Your task to perform on an android device: Search for beats solo 3 on newegg, select the first entry, add it to the cart, then select checkout. Image 0: 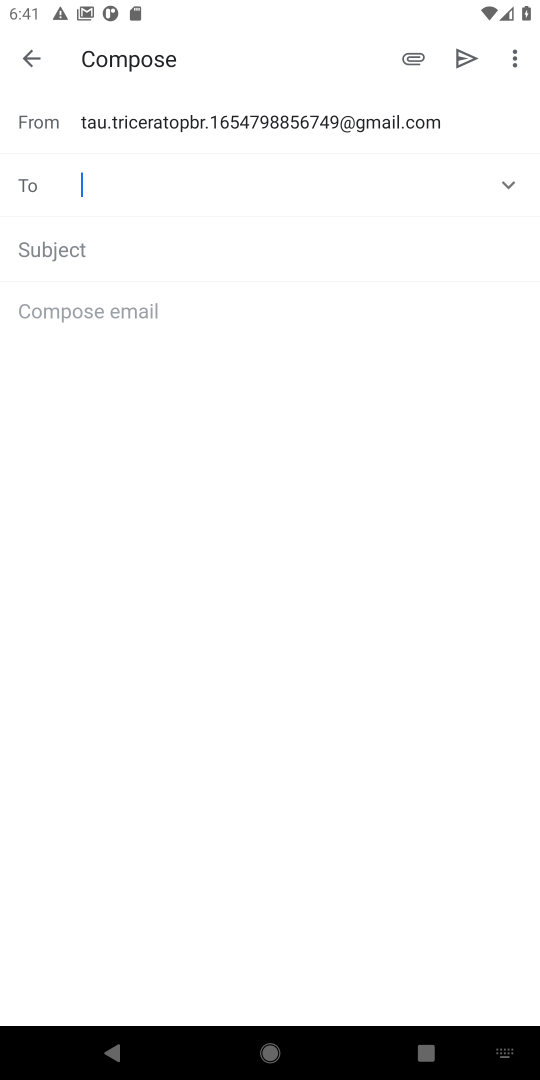
Step 0: press home button
Your task to perform on an android device: Search for beats solo 3 on newegg, select the first entry, add it to the cart, then select checkout. Image 1: 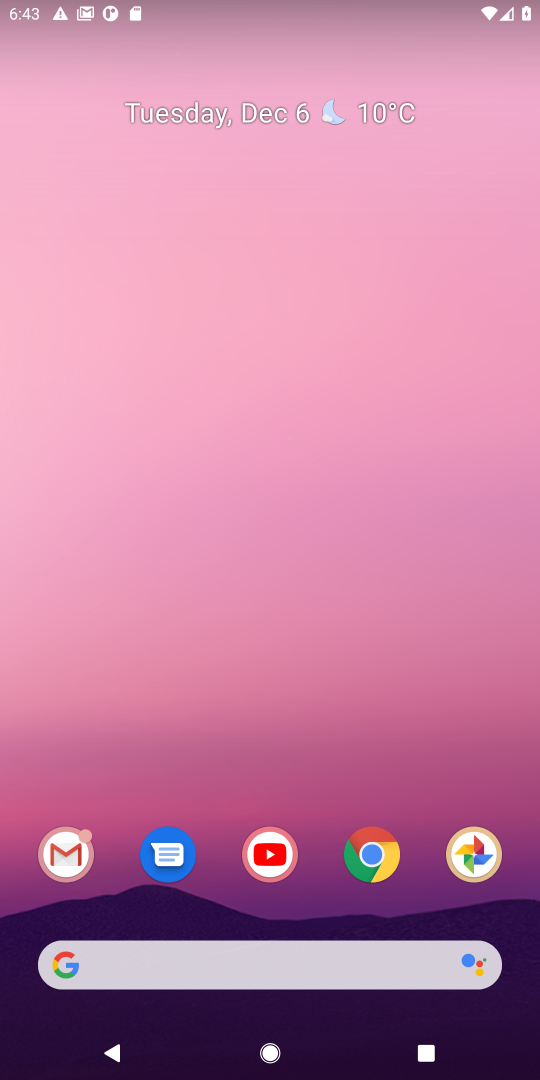
Step 1: click (375, 881)
Your task to perform on an android device: Search for beats solo 3 on newegg, select the first entry, add it to the cart, then select checkout. Image 2: 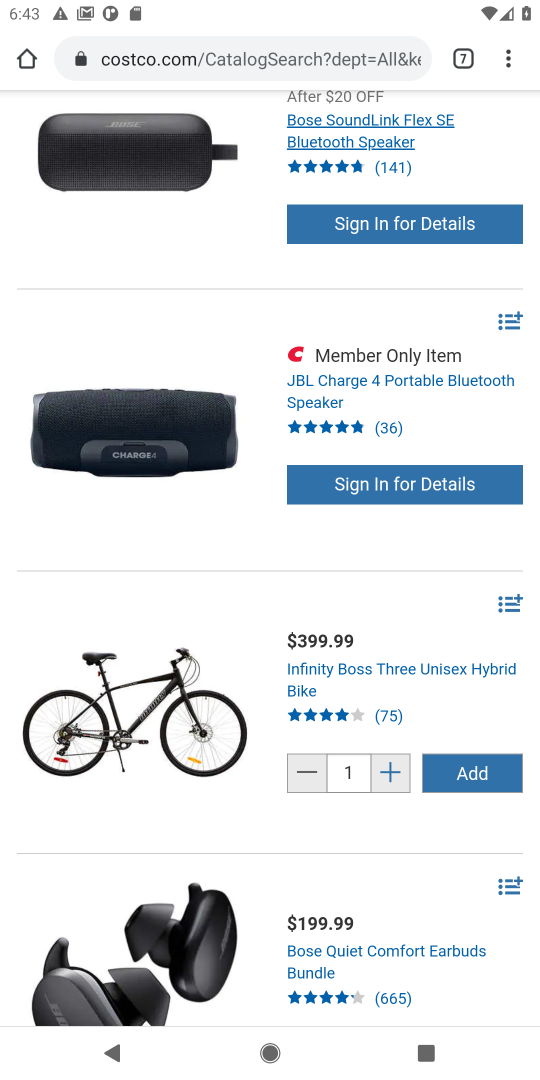
Step 2: click (463, 50)
Your task to perform on an android device: Search for beats solo 3 on newegg, select the first entry, add it to the cart, then select checkout. Image 3: 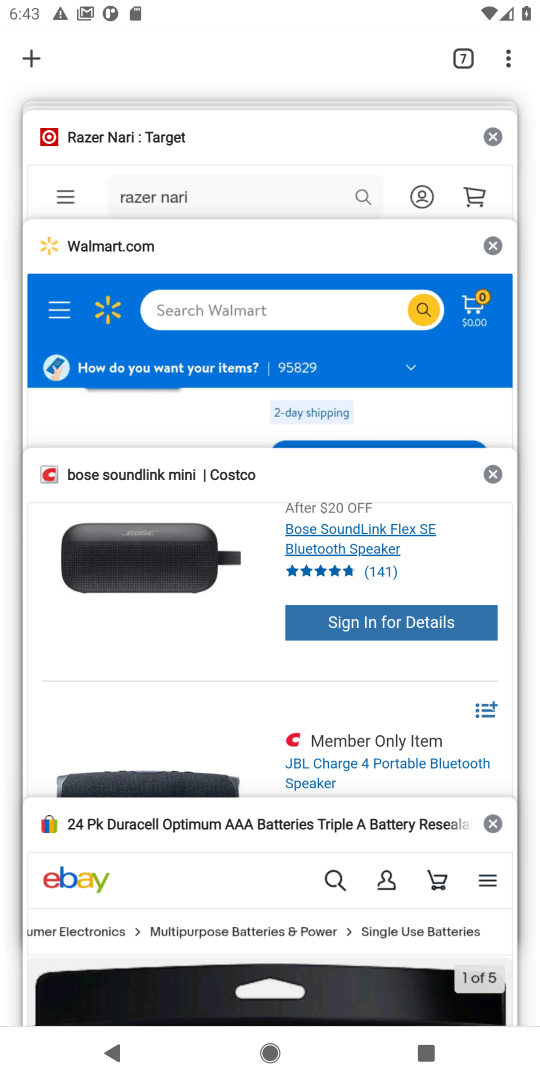
Step 3: drag from (153, 110) to (134, 442)
Your task to perform on an android device: Search for beats solo 3 on newegg, select the first entry, add it to the cart, then select checkout. Image 4: 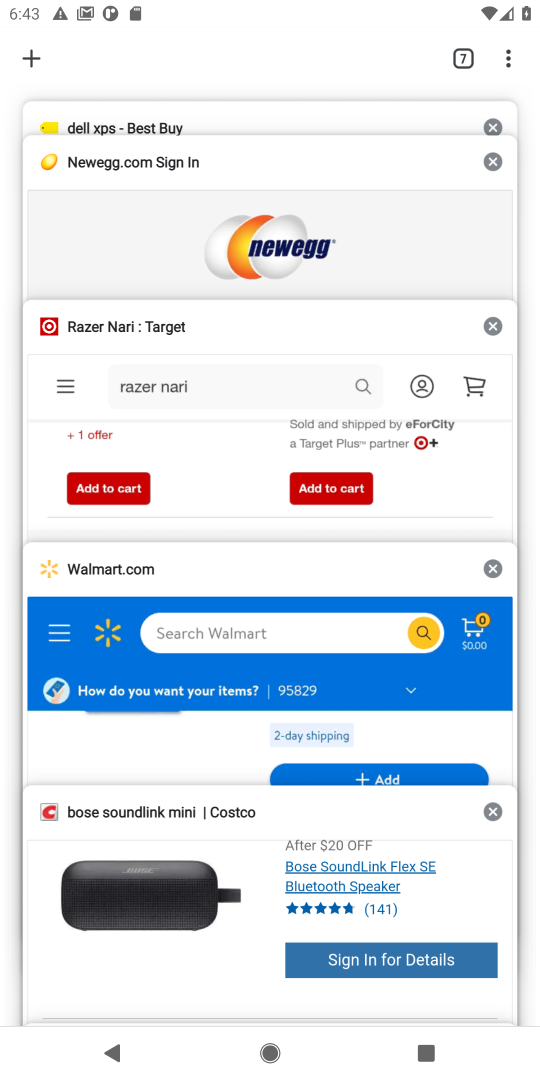
Step 4: click (141, 190)
Your task to perform on an android device: Search for beats solo 3 on newegg, select the first entry, add it to the cart, then select checkout. Image 5: 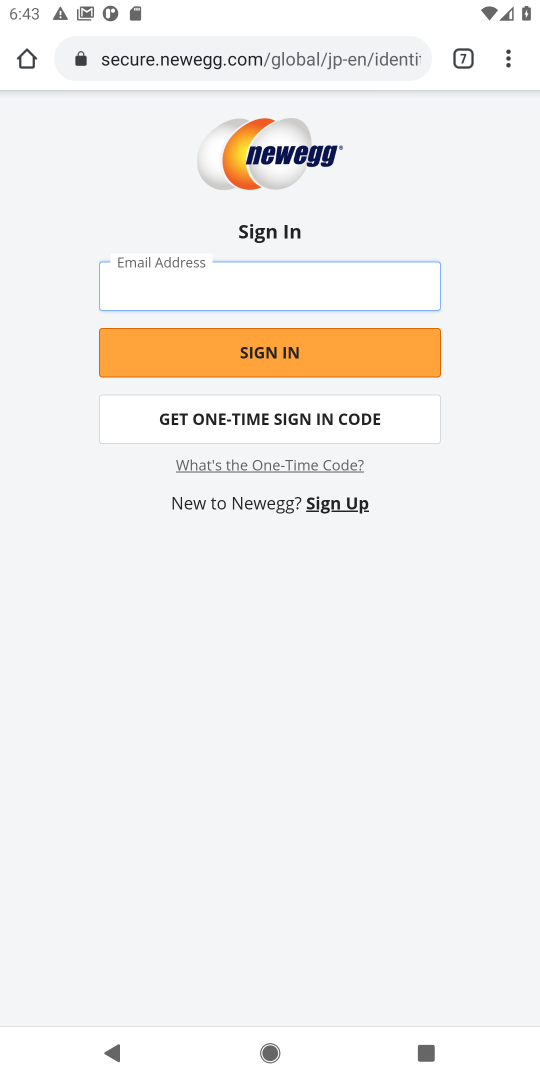
Step 5: press back button
Your task to perform on an android device: Search for beats solo 3 on newegg, select the first entry, add it to the cart, then select checkout. Image 6: 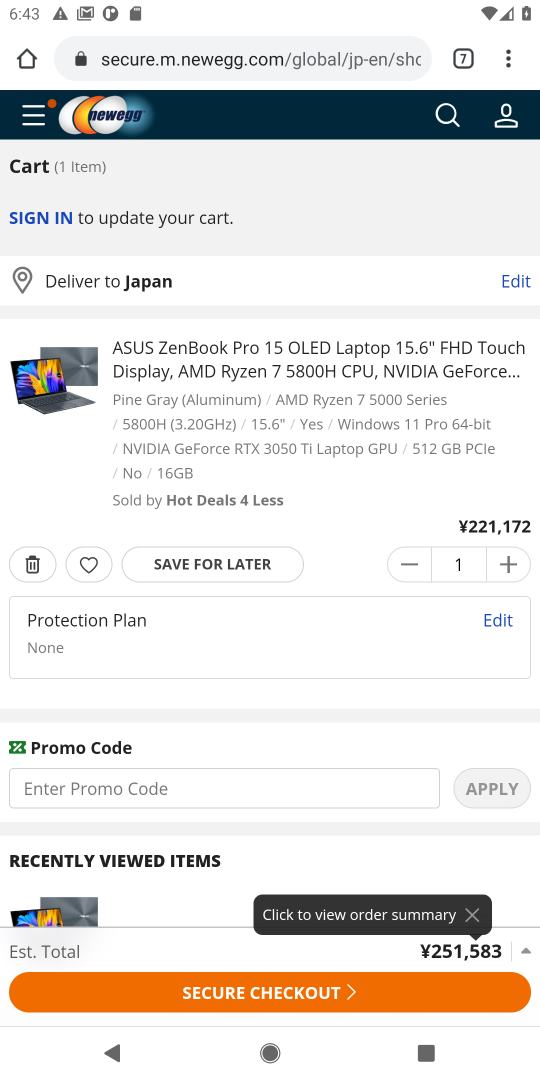
Step 6: click (446, 105)
Your task to perform on an android device: Search for beats solo 3 on newegg, select the first entry, add it to the cart, then select checkout. Image 7: 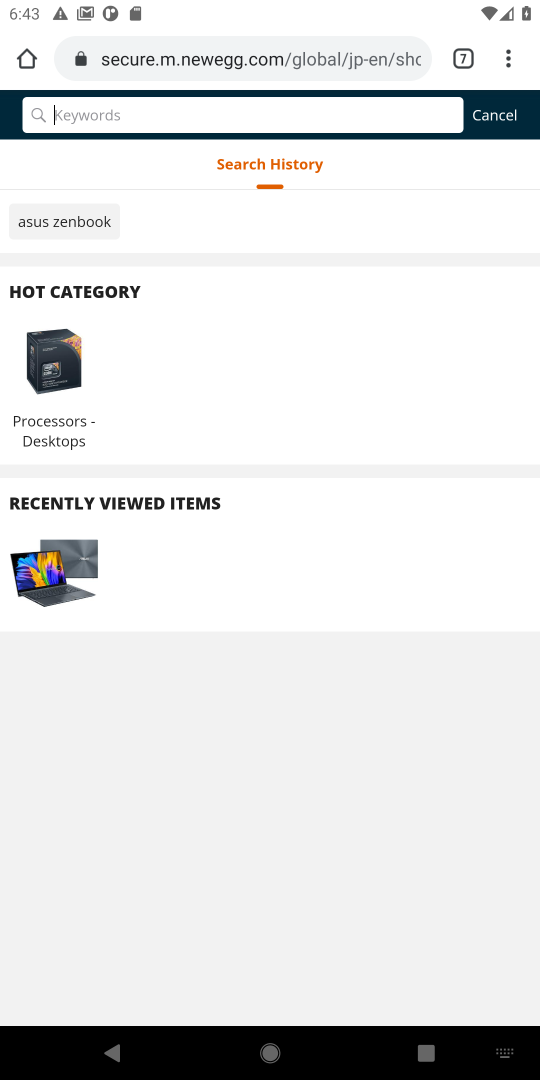
Step 7: type "beats solo 3"
Your task to perform on an android device: Search for beats solo 3 on newegg, select the first entry, add it to the cart, then select checkout. Image 8: 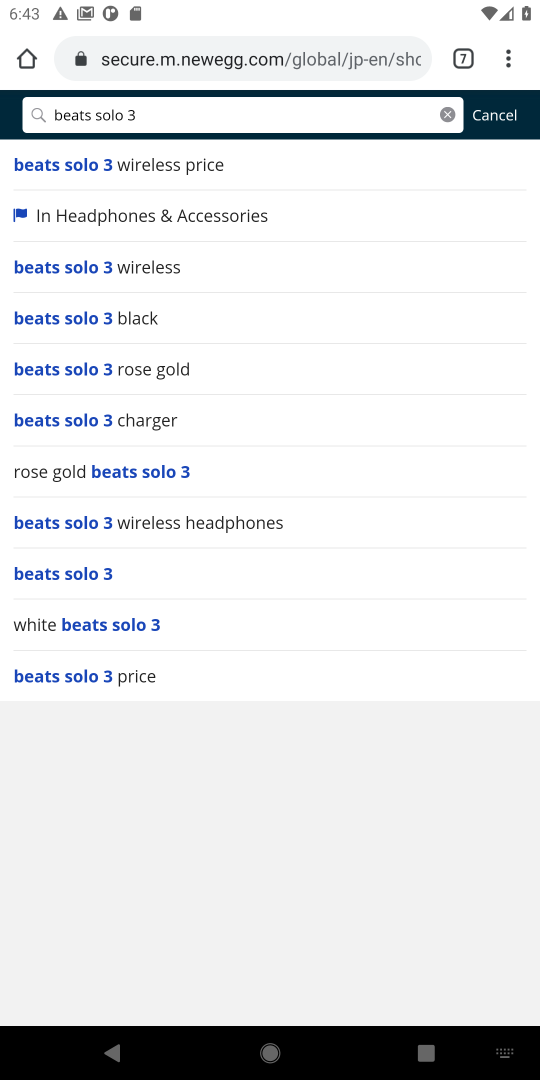
Step 8: click (75, 163)
Your task to perform on an android device: Search for beats solo 3 on newegg, select the first entry, add it to the cart, then select checkout. Image 9: 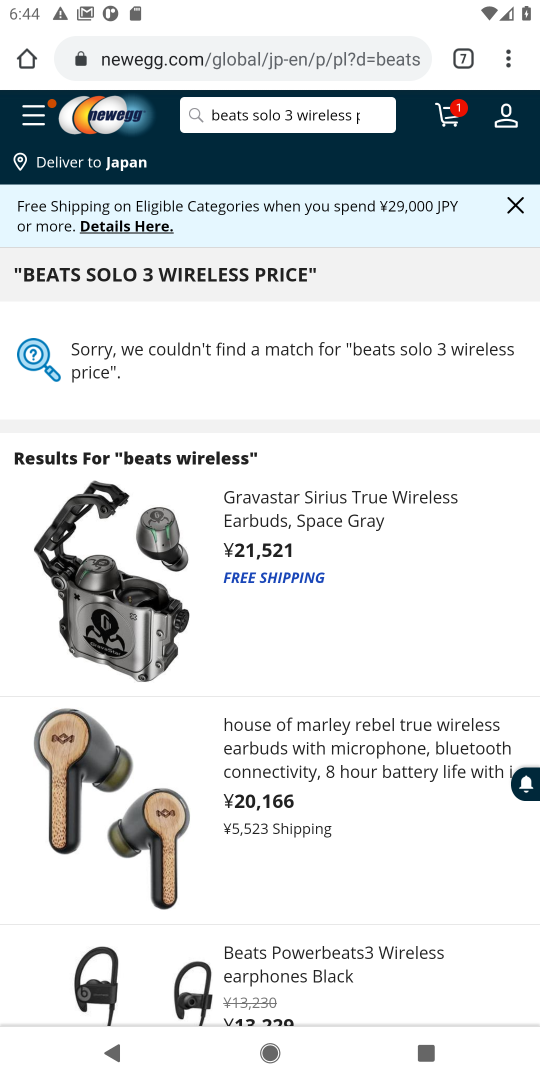
Step 9: click (357, 119)
Your task to perform on an android device: Search for beats solo 3 on newegg, select the first entry, add it to the cart, then select checkout. Image 10: 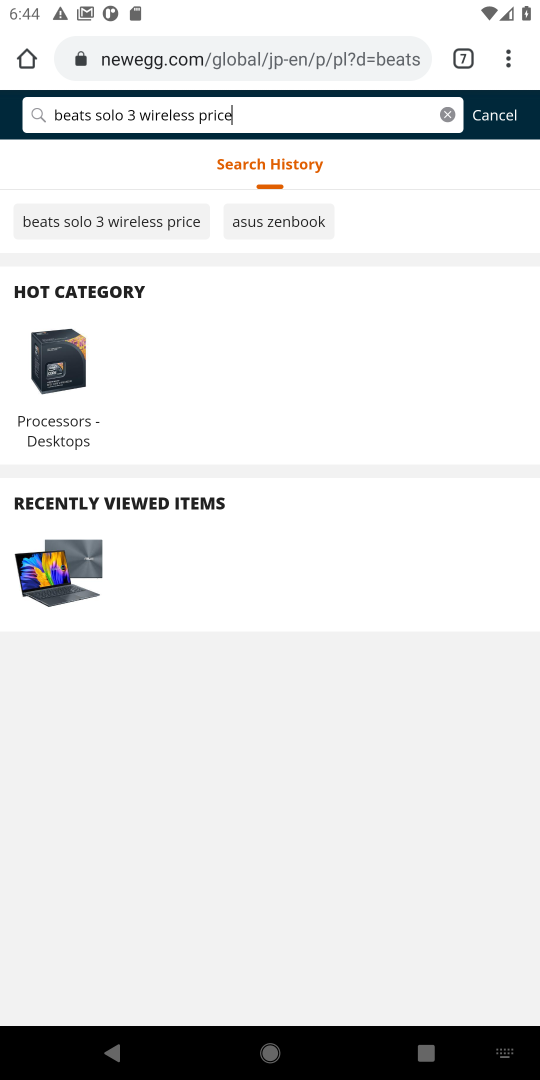
Step 10: click (445, 106)
Your task to perform on an android device: Search for beats solo 3 on newegg, select the first entry, add it to the cart, then select checkout. Image 11: 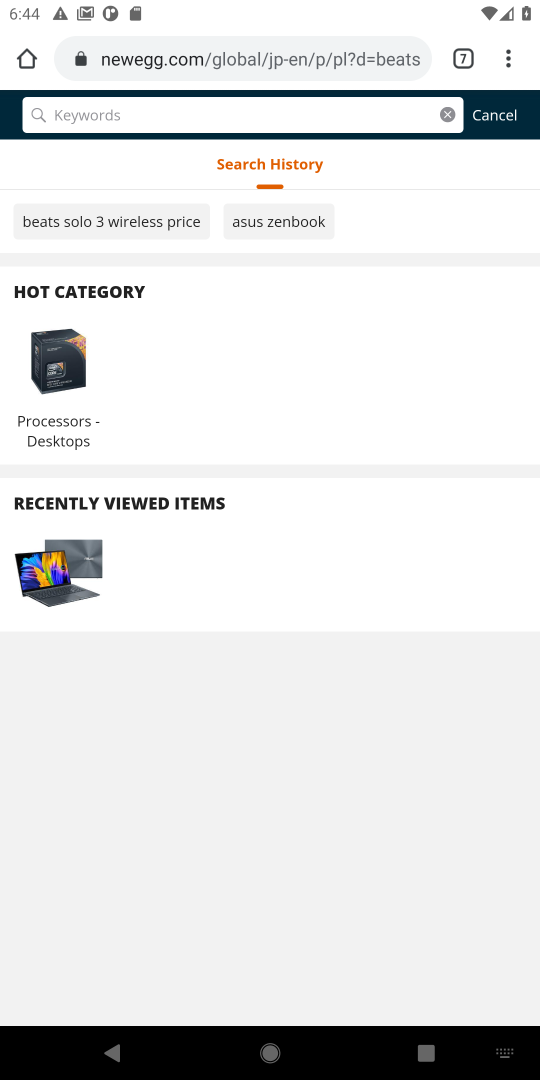
Step 11: type "beats solo 3"
Your task to perform on an android device: Search for beats solo 3 on newegg, select the first entry, add it to the cart, then select checkout. Image 12: 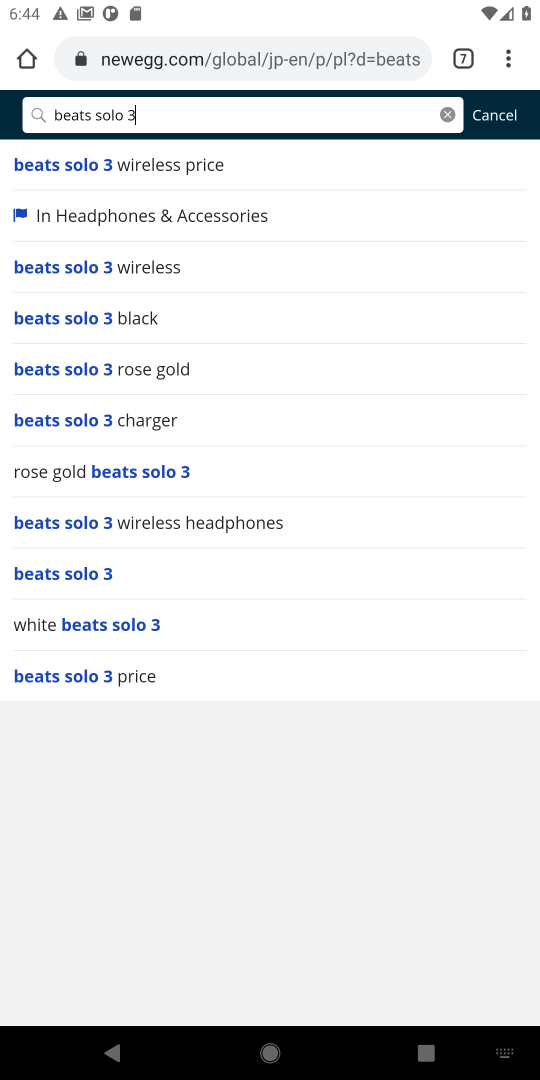
Step 12: click (74, 568)
Your task to perform on an android device: Search for beats solo 3 on newegg, select the first entry, add it to the cart, then select checkout. Image 13: 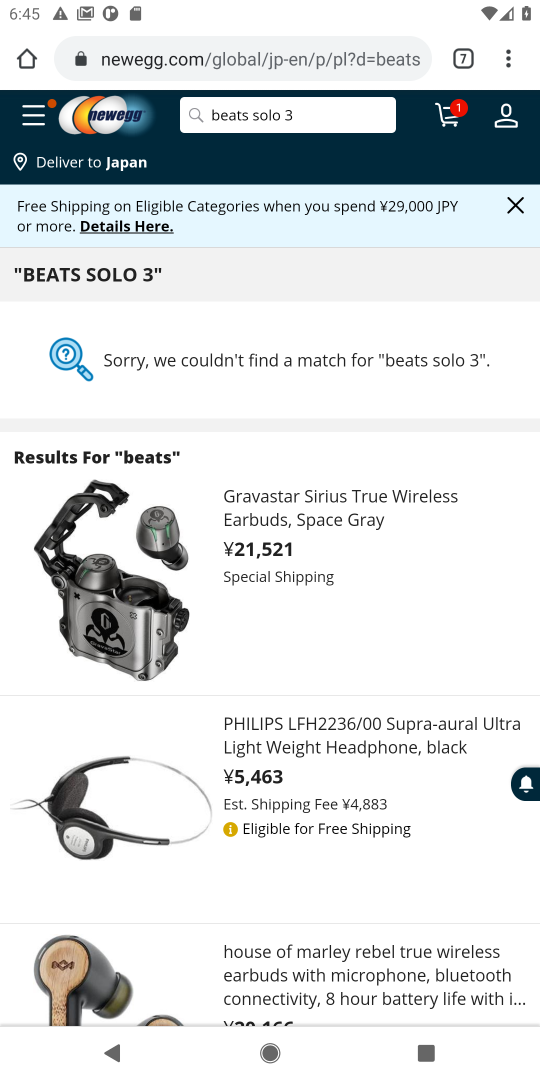
Step 13: task complete